Your task to perform on an android device: open a new tab in the chrome app Image 0: 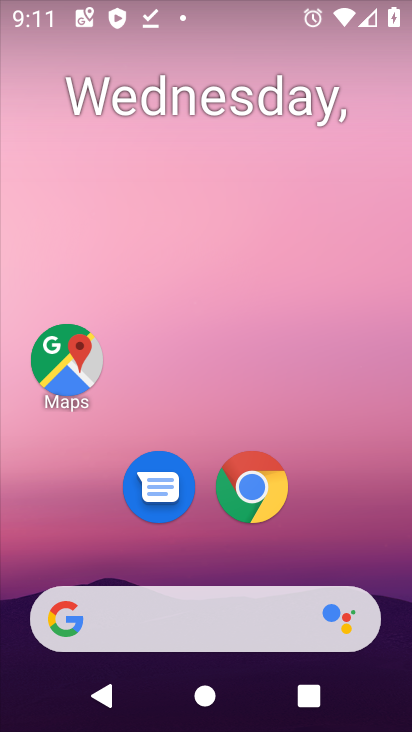
Step 0: drag from (294, 698) to (190, 114)
Your task to perform on an android device: open a new tab in the chrome app Image 1: 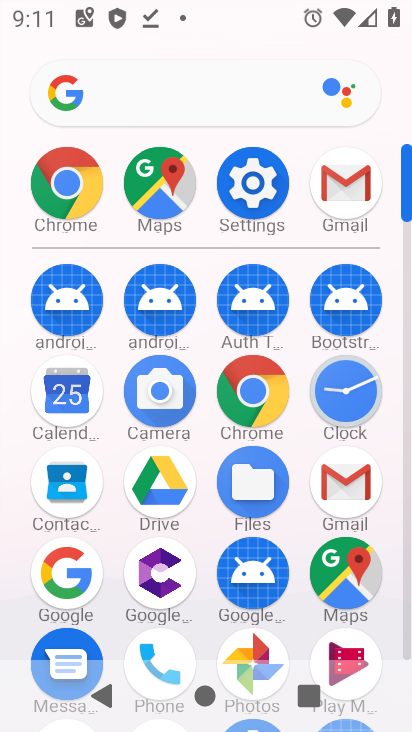
Step 1: click (66, 199)
Your task to perform on an android device: open a new tab in the chrome app Image 2: 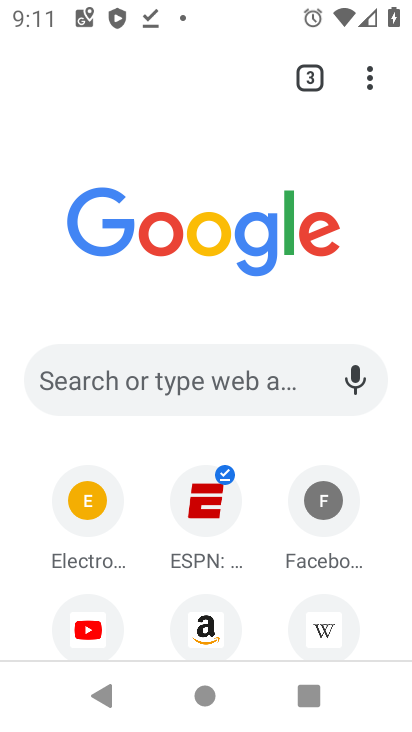
Step 2: drag from (365, 68) to (57, 157)
Your task to perform on an android device: open a new tab in the chrome app Image 3: 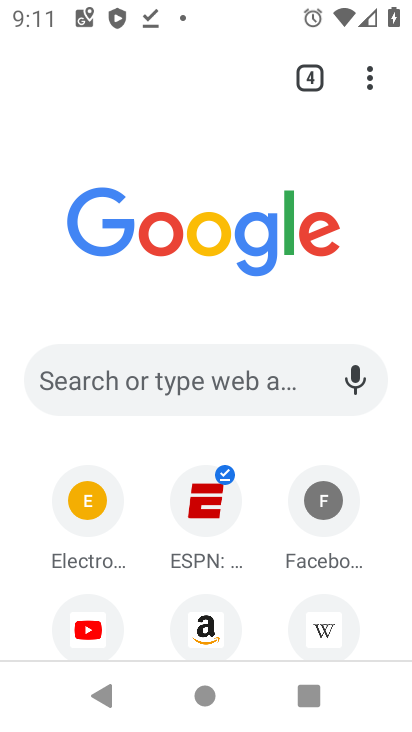
Step 3: click (58, 156)
Your task to perform on an android device: open a new tab in the chrome app Image 4: 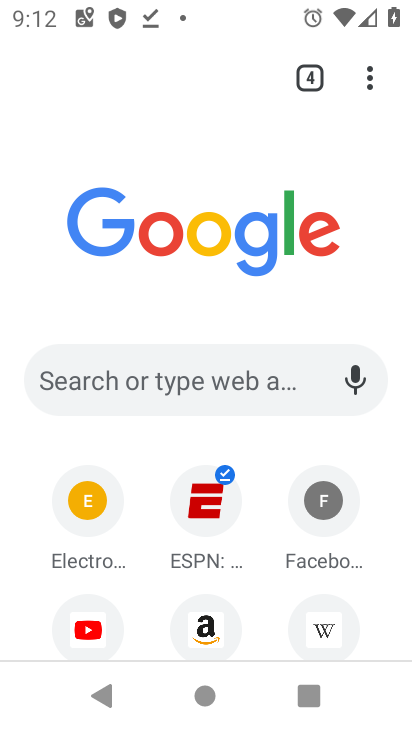
Step 4: task complete